Your task to perform on an android device: Show me popular videos on Youtube Image 0: 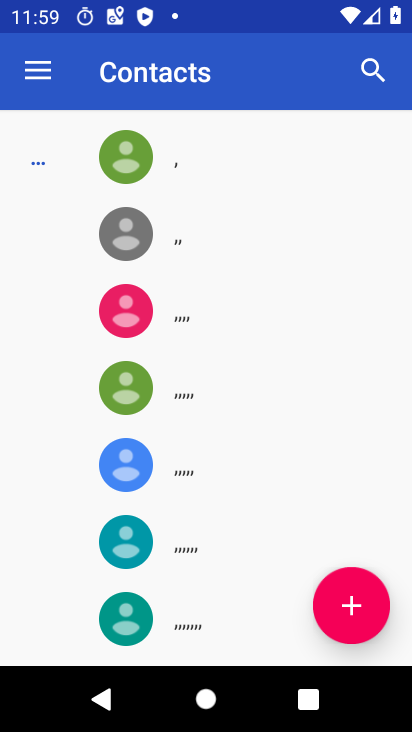
Step 0: press home button
Your task to perform on an android device: Show me popular videos on Youtube Image 1: 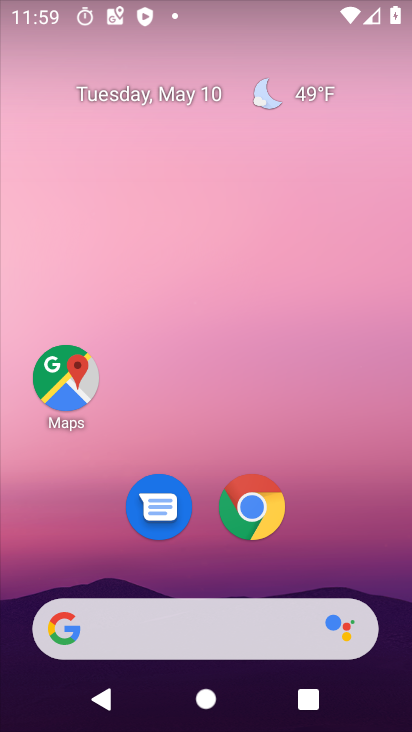
Step 1: drag from (215, 563) to (263, 67)
Your task to perform on an android device: Show me popular videos on Youtube Image 2: 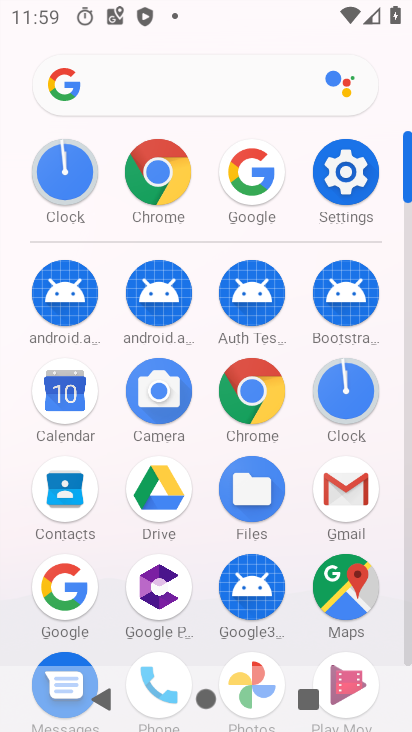
Step 2: drag from (206, 590) to (219, 168)
Your task to perform on an android device: Show me popular videos on Youtube Image 3: 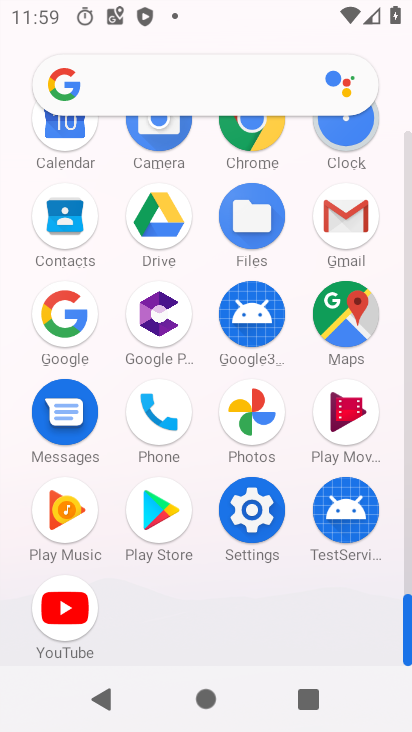
Step 3: click (68, 610)
Your task to perform on an android device: Show me popular videos on Youtube Image 4: 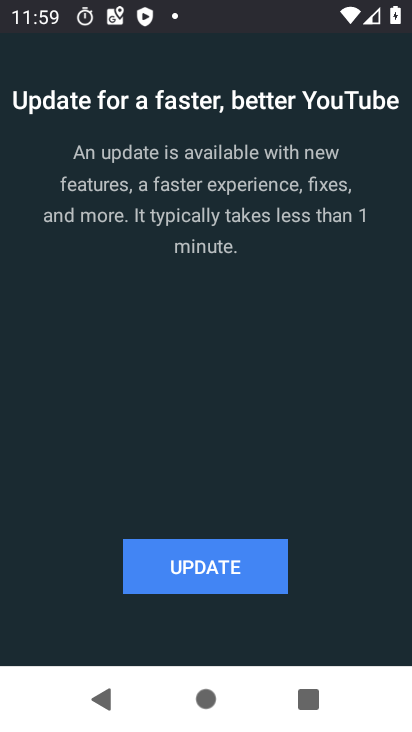
Step 4: click (209, 567)
Your task to perform on an android device: Show me popular videos on Youtube Image 5: 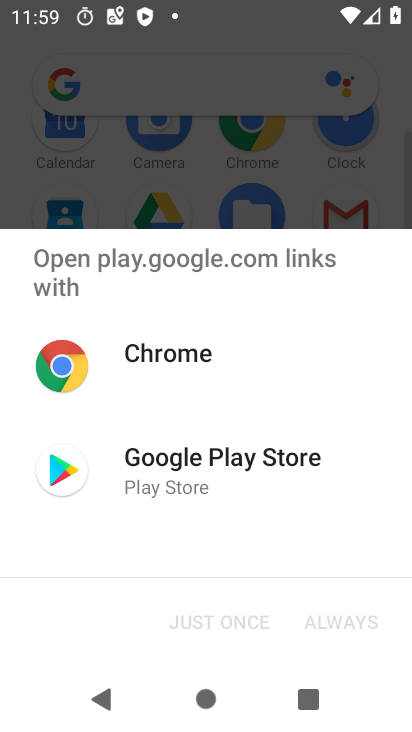
Step 5: click (179, 473)
Your task to perform on an android device: Show me popular videos on Youtube Image 6: 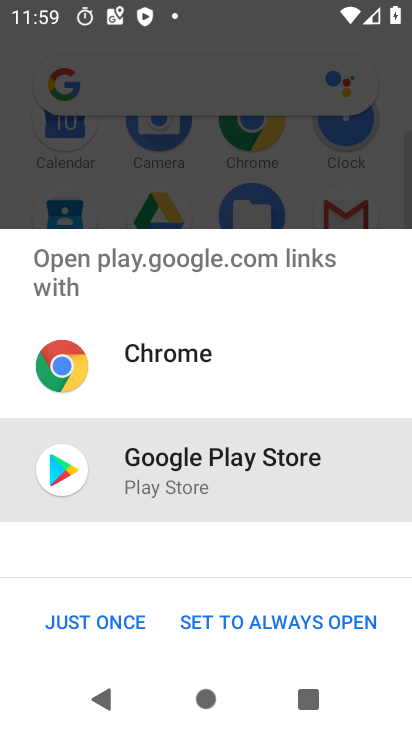
Step 6: click (110, 630)
Your task to perform on an android device: Show me popular videos on Youtube Image 7: 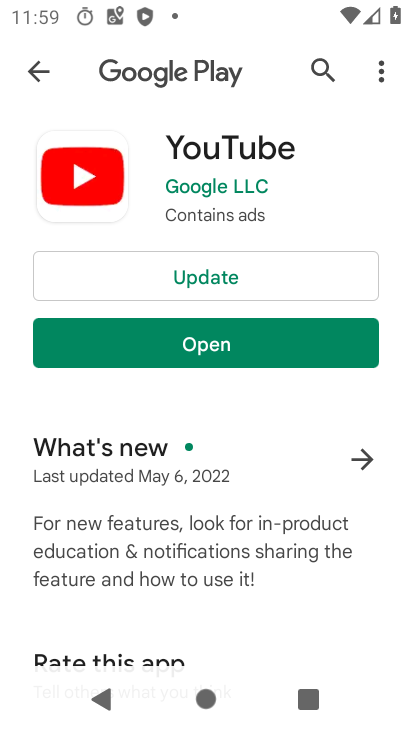
Step 7: click (197, 278)
Your task to perform on an android device: Show me popular videos on Youtube Image 8: 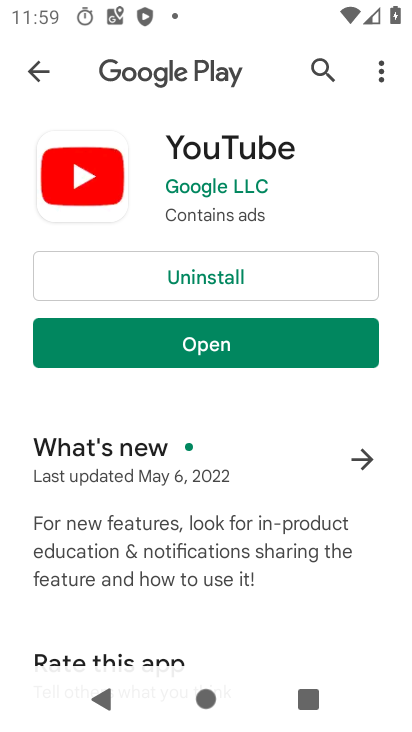
Step 8: click (190, 348)
Your task to perform on an android device: Show me popular videos on Youtube Image 9: 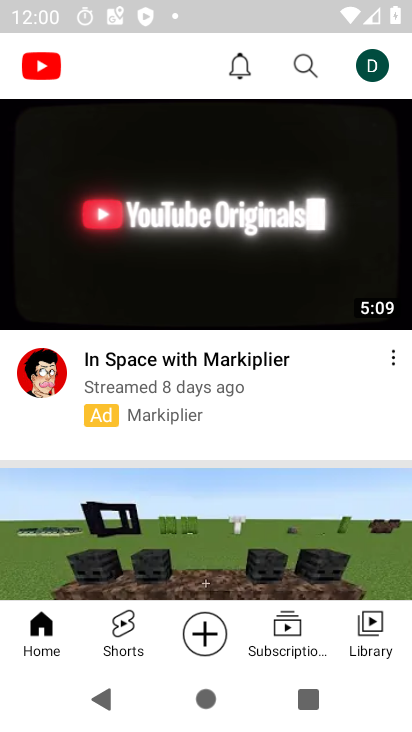
Step 9: task complete